Your task to perform on an android device: Go to battery settings Image 0: 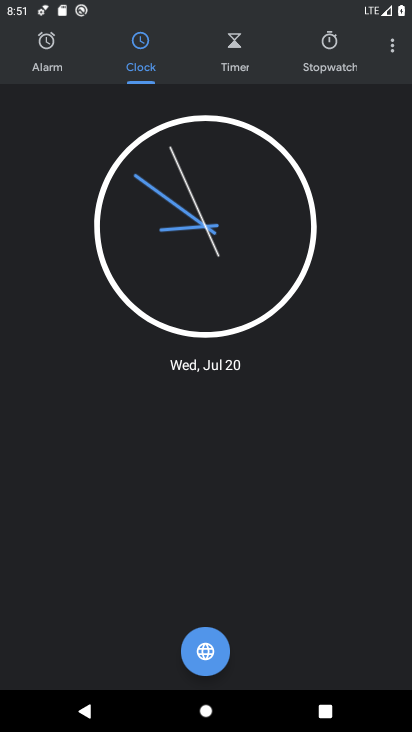
Step 0: press home button
Your task to perform on an android device: Go to battery settings Image 1: 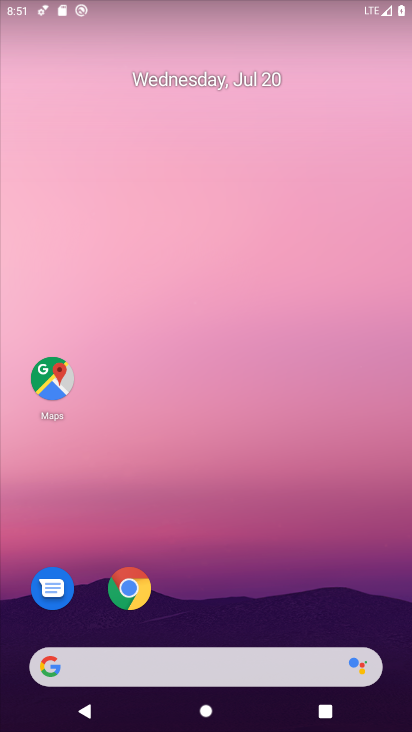
Step 1: drag from (201, 605) to (223, 87)
Your task to perform on an android device: Go to battery settings Image 2: 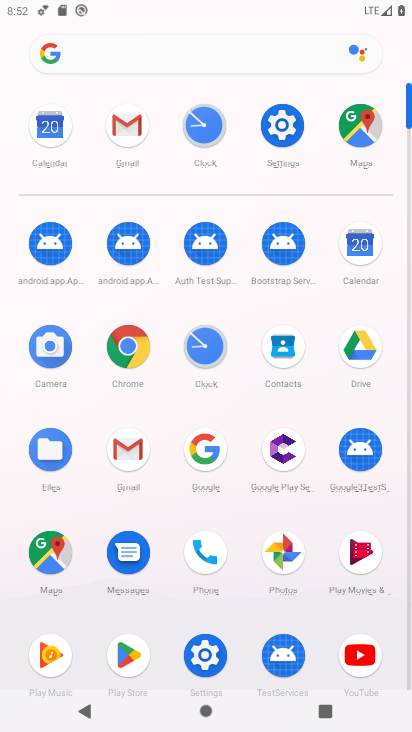
Step 2: click (280, 126)
Your task to perform on an android device: Go to battery settings Image 3: 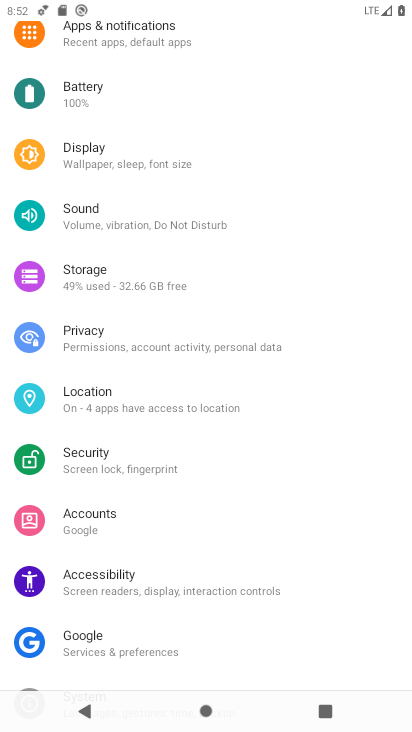
Step 3: click (119, 89)
Your task to perform on an android device: Go to battery settings Image 4: 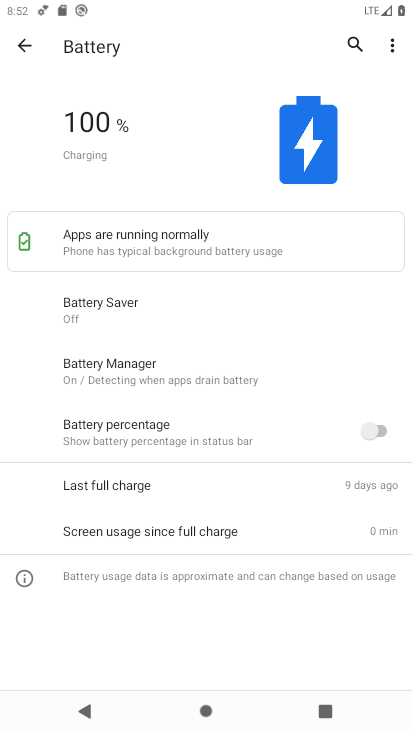
Step 4: task complete